Your task to perform on an android device: delete the emails in spam in the gmail app Image 0: 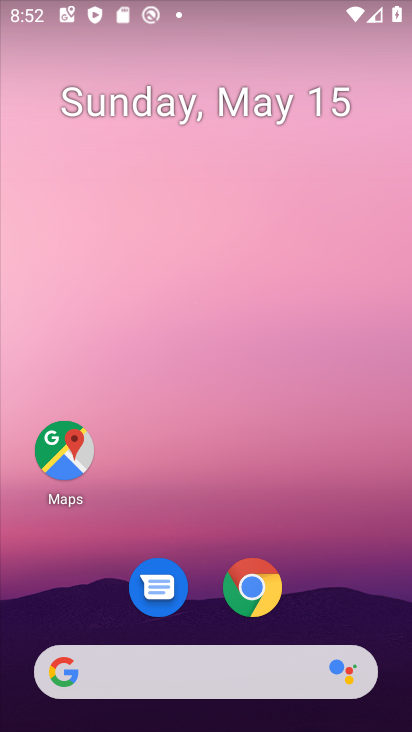
Step 0: drag from (332, 517) to (211, 136)
Your task to perform on an android device: delete the emails in spam in the gmail app Image 1: 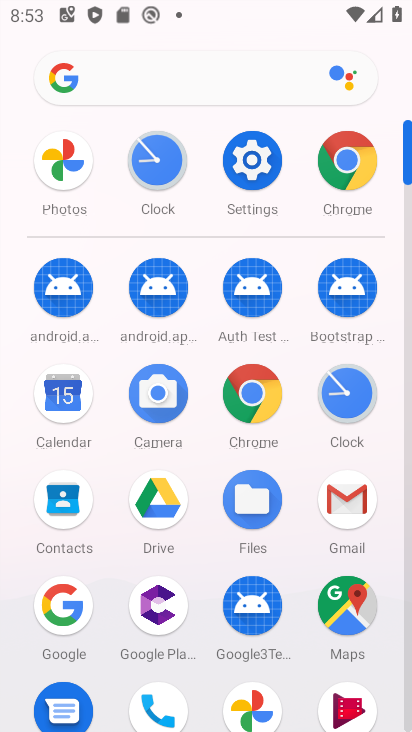
Step 1: click (358, 478)
Your task to perform on an android device: delete the emails in spam in the gmail app Image 2: 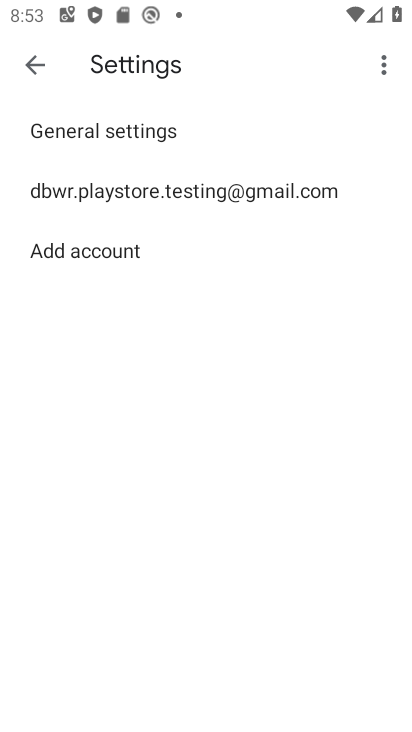
Step 2: press back button
Your task to perform on an android device: delete the emails in spam in the gmail app Image 3: 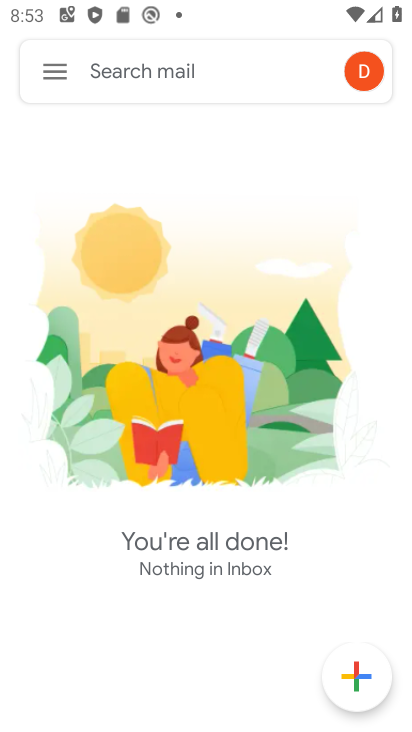
Step 3: click (37, 66)
Your task to perform on an android device: delete the emails in spam in the gmail app Image 4: 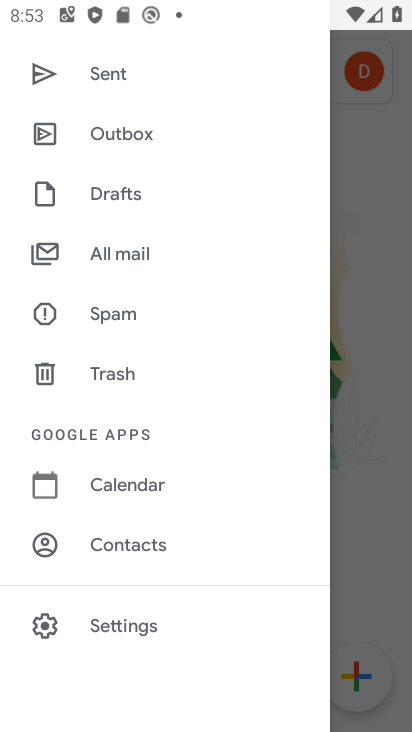
Step 4: click (110, 313)
Your task to perform on an android device: delete the emails in spam in the gmail app Image 5: 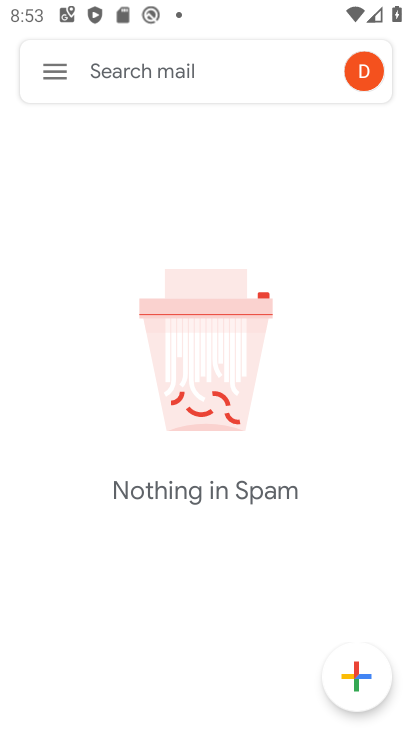
Step 5: task complete